Your task to perform on an android device: remove spam from my inbox in the gmail app Image 0: 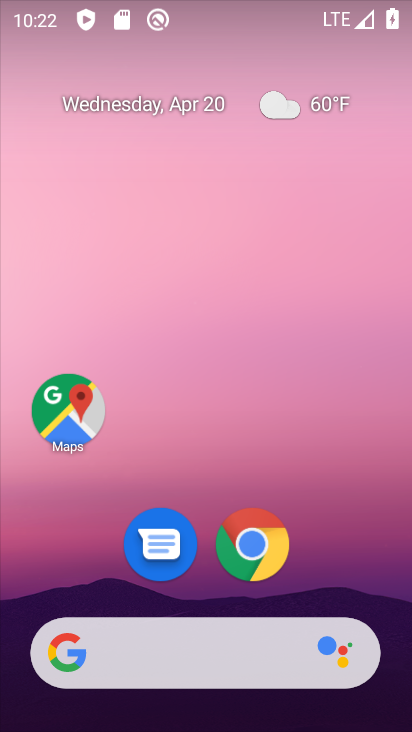
Step 0: drag from (394, 612) to (340, 121)
Your task to perform on an android device: remove spam from my inbox in the gmail app Image 1: 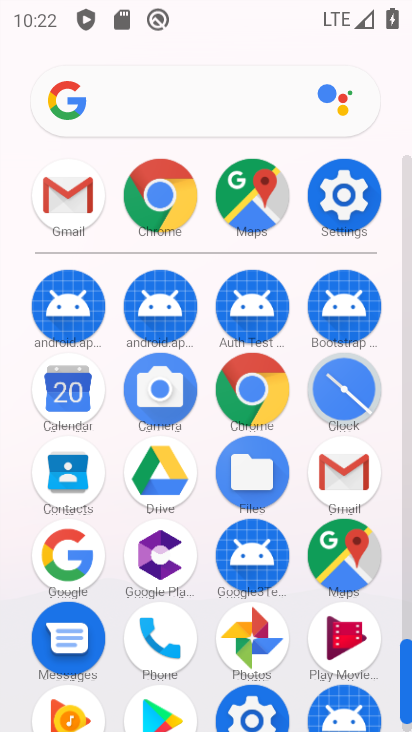
Step 1: click (84, 202)
Your task to perform on an android device: remove spam from my inbox in the gmail app Image 2: 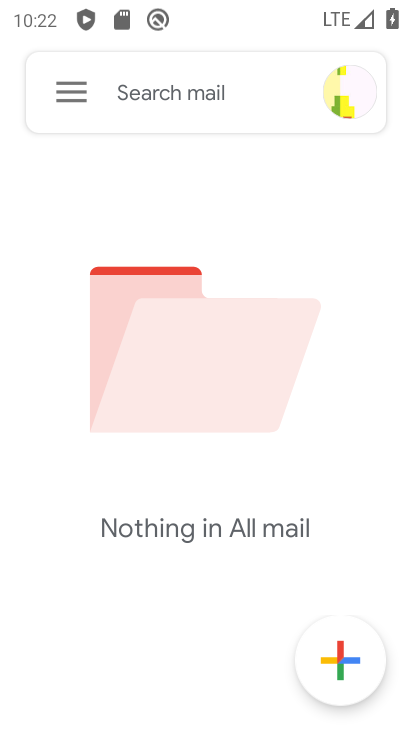
Step 2: click (54, 95)
Your task to perform on an android device: remove spam from my inbox in the gmail app Image 3: 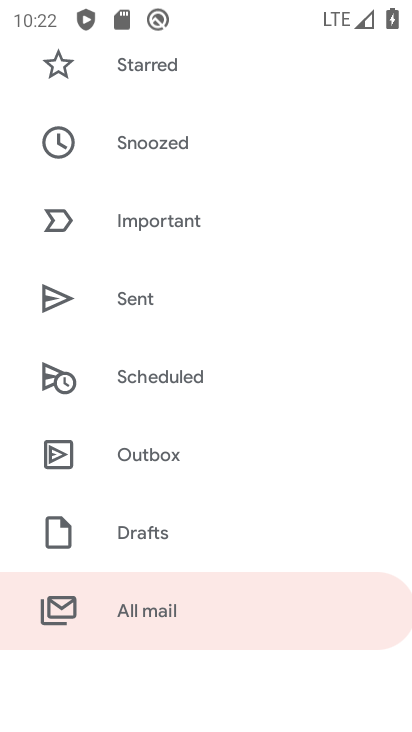
Step 3: drag from (239, 541) to (224, 282)
Your task to perform on an android device: remove spam from my inbox in the gmail app Image 4: 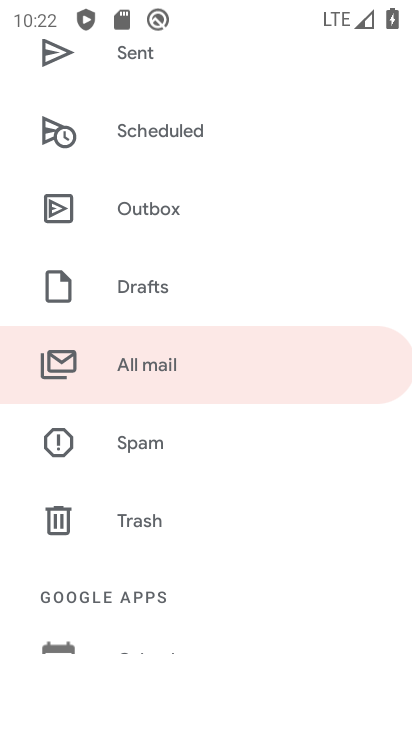
Step 4: click (233, 424)
Your task to perform on an android device: remove spam from my inbox in the gmail app Image 5: 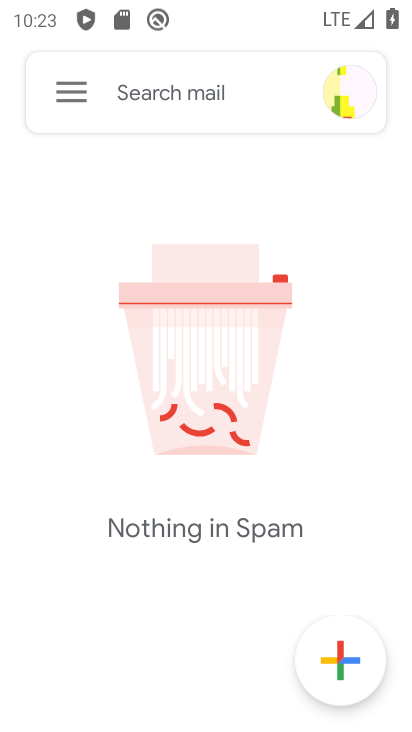
Step 5: task complete